Your task to perform on an android device: turn on priority inbox in the gmail app Image 0: 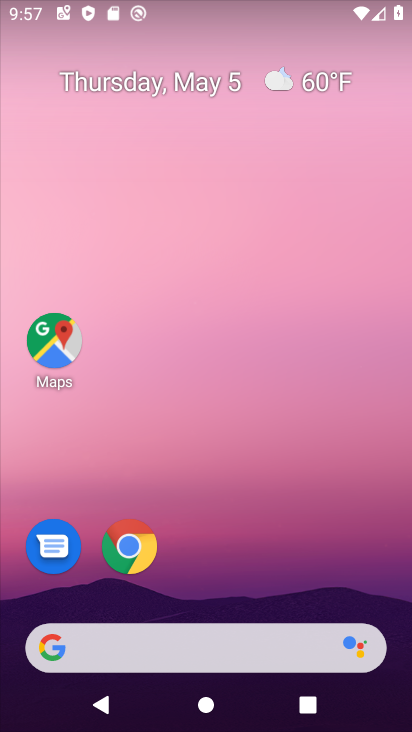
Step 0: drag from (304, 580) to (270, 161)
Your task to perform on an android device: turn on priority inbox in the gmail app Image 1: 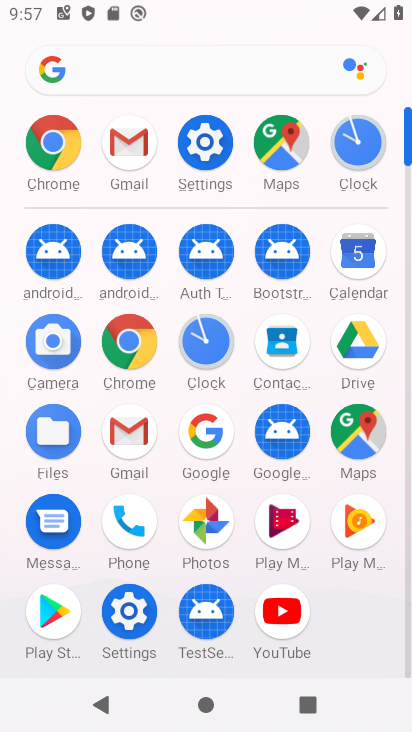
Step 1: click (132, 145)
Your task to perform on an android device: turn on priority inbox in the gmail app Image 2: 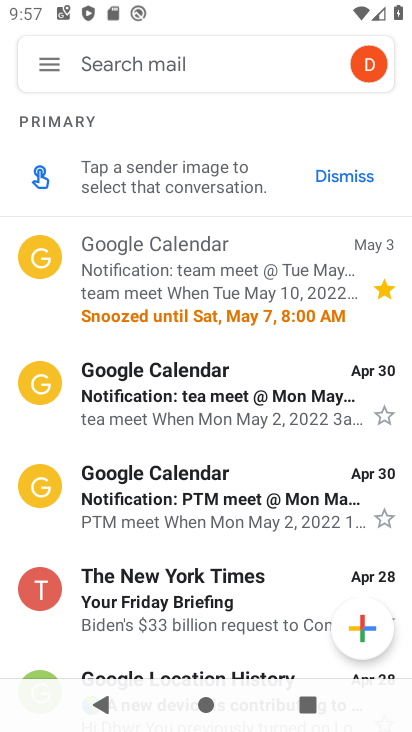
Step 2: click (42, 69)
Your task to perform on an android device: turn on priority inbox in the gmail app Image 3: 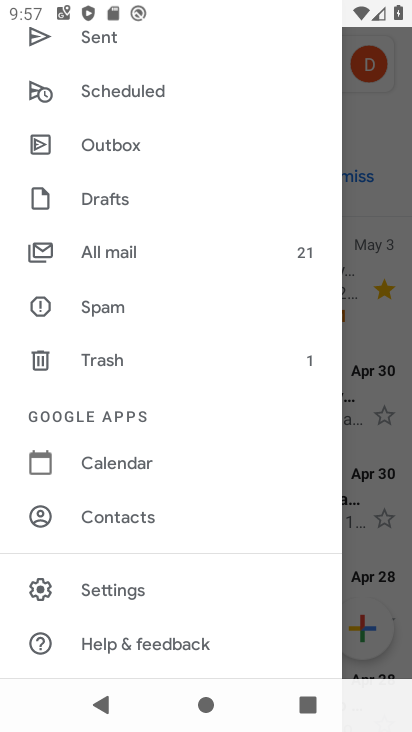
Step 3: click (121, 594)
Your task to perform on an android device: turn on priority inbox in the gmail app Image 4: 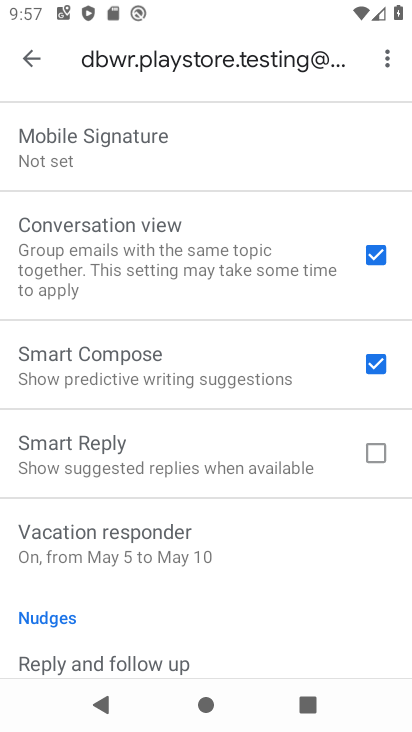
Step 4: drag from (86, 418) to (120, 489)
Your task to perform on an android device: turn on priority inbox in the gmail app Image 5: 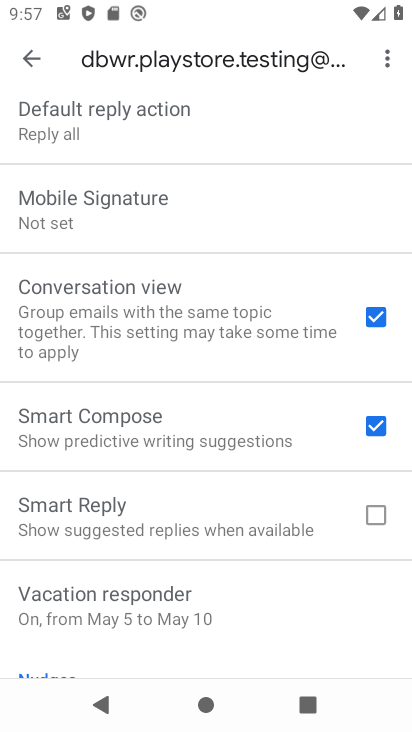
Step 5: drag from (114, 346) to (141, 427)
Your task to perform on an android device: turn on priority inbox in the gmail app Image 6: 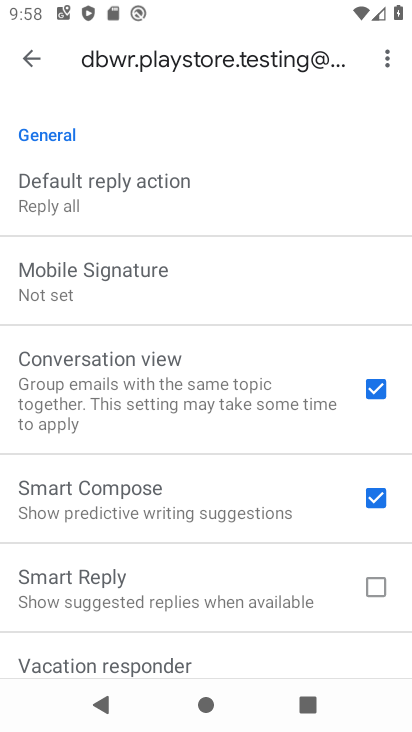
Step 6: drag from (113, 354) to (139, 425)
Your task to perform on an android device: turn on priority inbox in the gmail app Image 7: 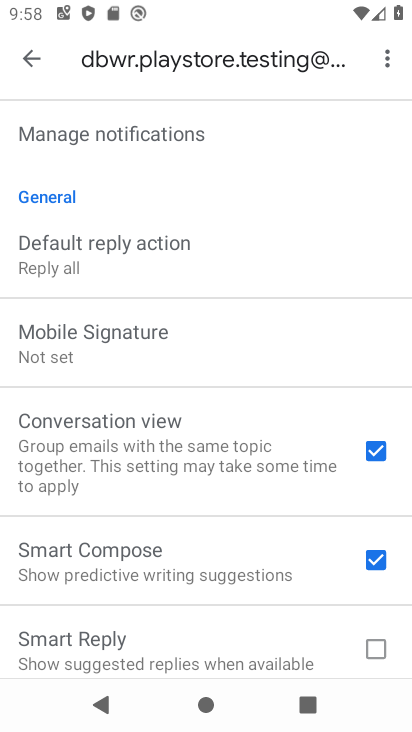
Step 7: drag from (105, 354) to (120, 417)
Your task to perform on an android device: turn on priority inbox in the gmail app Image 8: 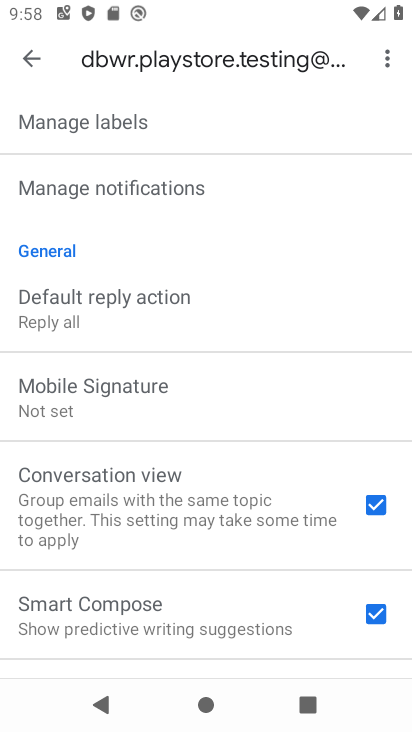
Step 8: drag from (96, 340) to (134, 439)
Your task to perform on an android device: turn on priority inbox in the gmail app Image 9: 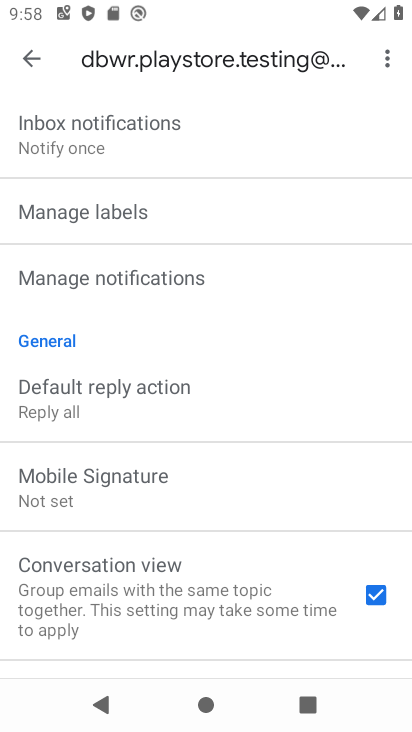
Step 9: drag from (101, 335) to (129, 431)
Your task to perform on an android device: turn on priority inbox in the gmail app Image 10: 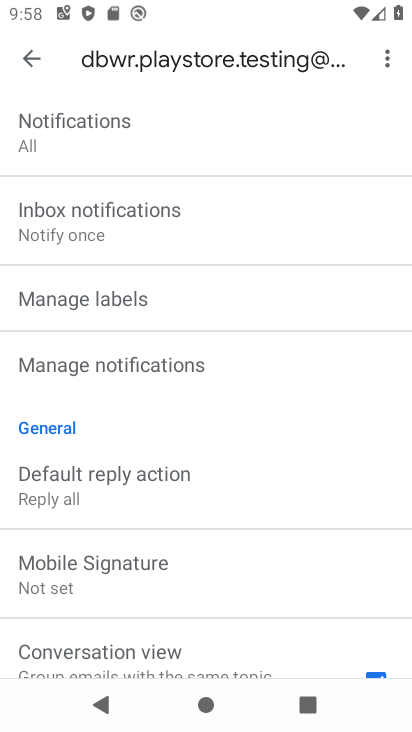
Step 10: drag from (117, 127) to (127, 453)
Your task to perform on an android device: turn on priority inbox in the gmail app Image 11: 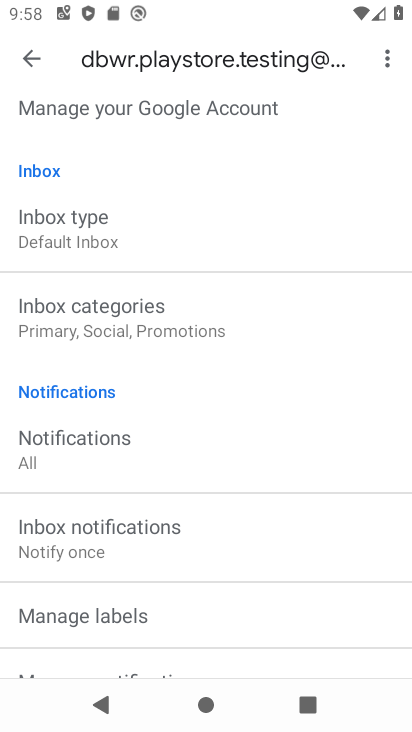
Step 11: click (76, 230)
Your task to perform on an android device: turn on priority inbox in the gmail app Image 12: 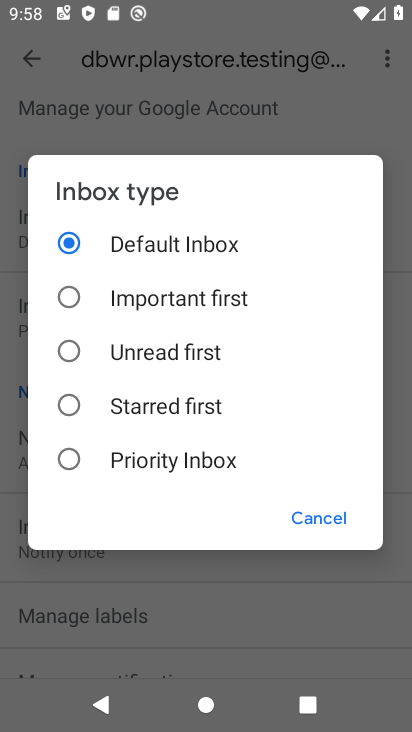
Step 12: click (109, 463)
Your task to perform on an android device: turn on priority inbox in the gmail app Image 13: 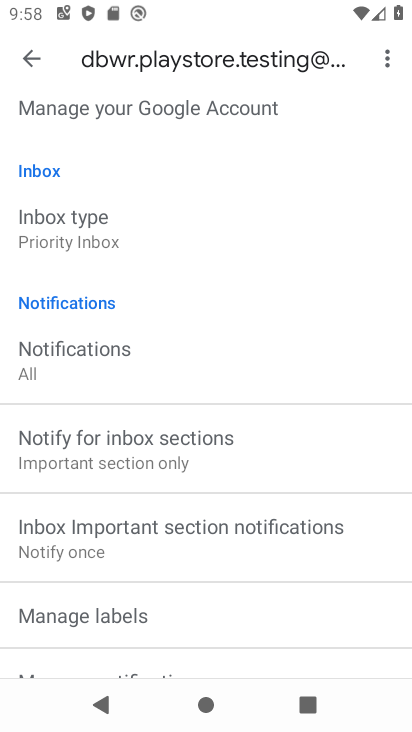
Step 13: task complete